Your task to perform on an android device: Open Android settings Image 0: 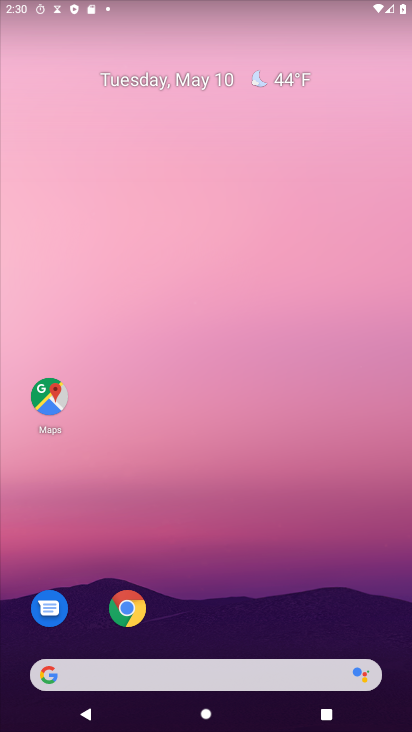
Step 0: drag from (347, 632) to (325, 59)
Your task to perform on an android device: Open Android settings Image 1: 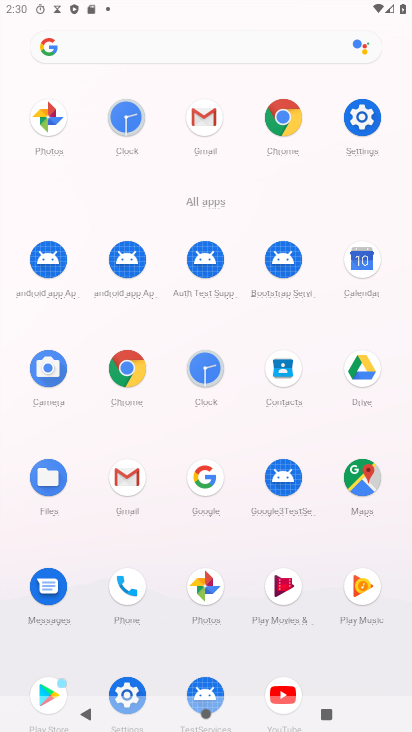
Step 1: click (362, 123)
Your task to perform on an android device: Open Android settings Image 2: 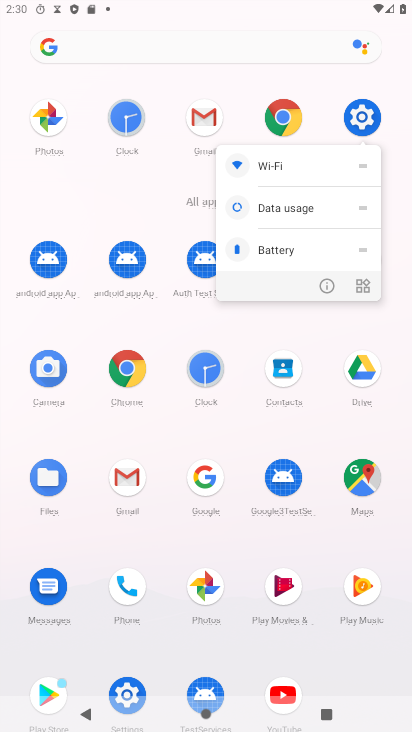
Step 2: click (369, 118)
Your task to perform on an android device: Open Android settings Image 3: 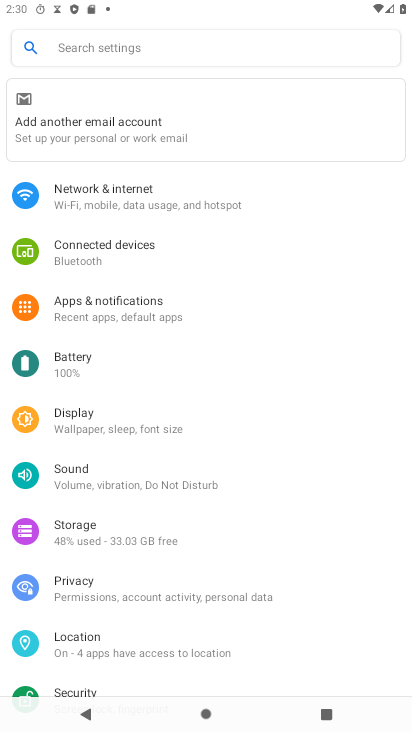
Step 3: task complete